Your task to perform on an android device: Open Amazon Image 0: 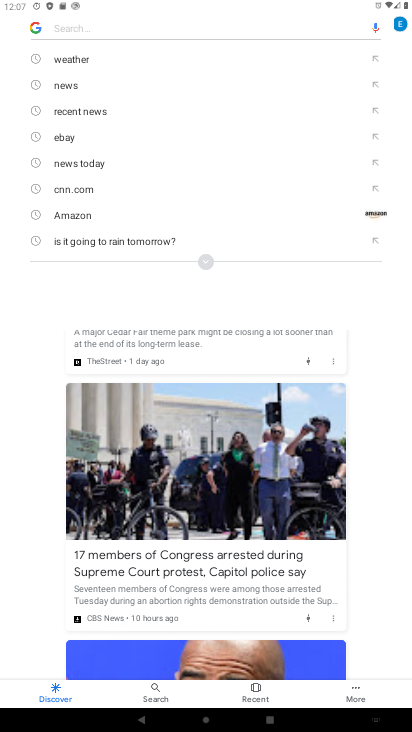
Step 0: press home button
Your task to perform on an android device: Open Amazon Image 1: 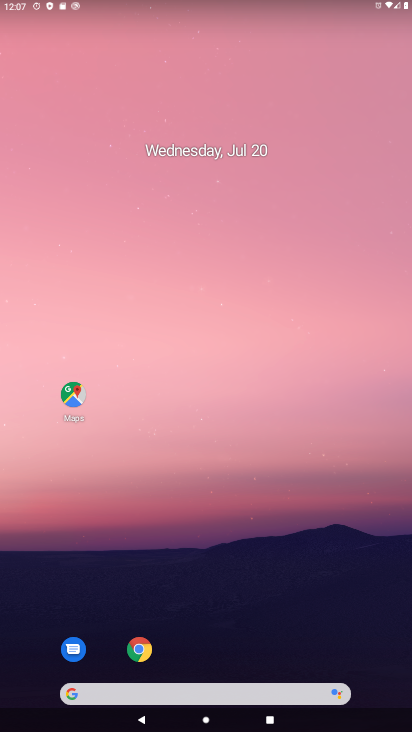
Step 1: click (138, 650)
Your task to perform on an android device: Open Amazon Image 2: 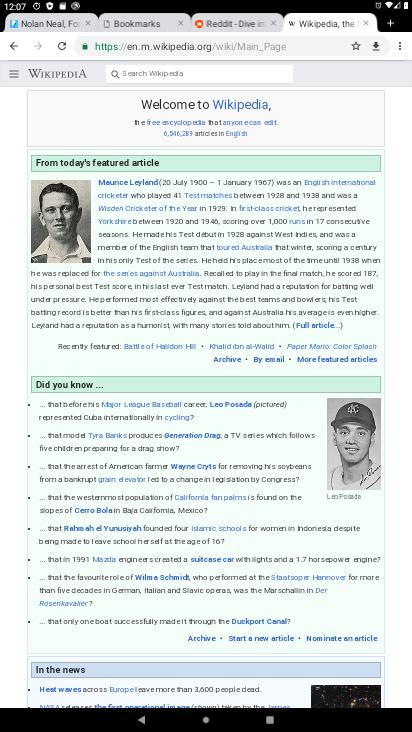
Step 2: click (401, 48)
Your task to perform on an android device: Open Amazon Image 3: 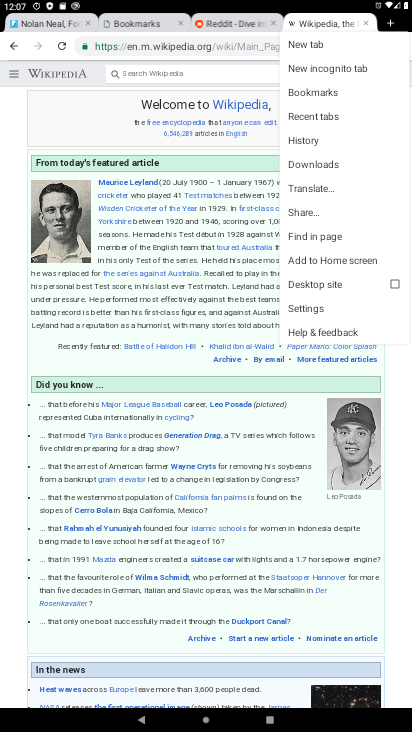
Step 3: click (308, 42)
Your task to perform on an android device: Open Amazon Image 4: 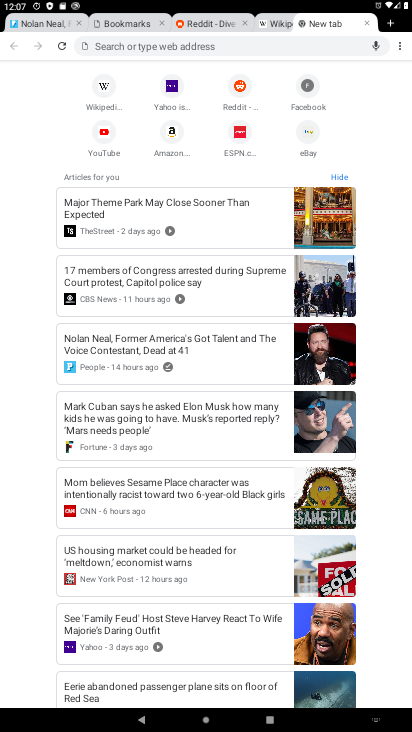
Step 4: click (171, 134)
Your task to perform on an android device: Open Amazon Image 5: 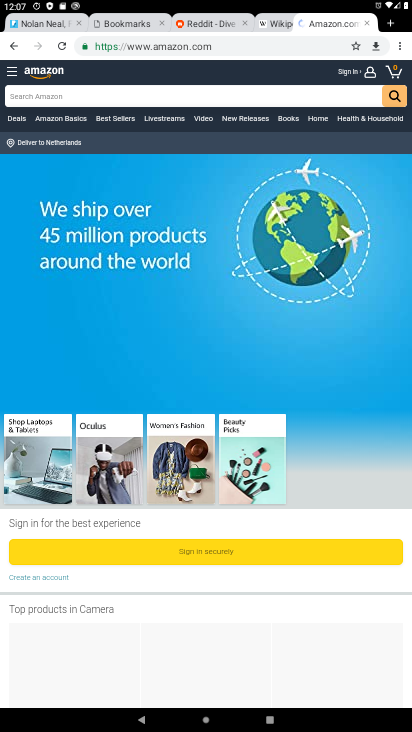
Step 5: task complete